Your task to perform on an android device: stop showing notifications on the lock screen Image 0: 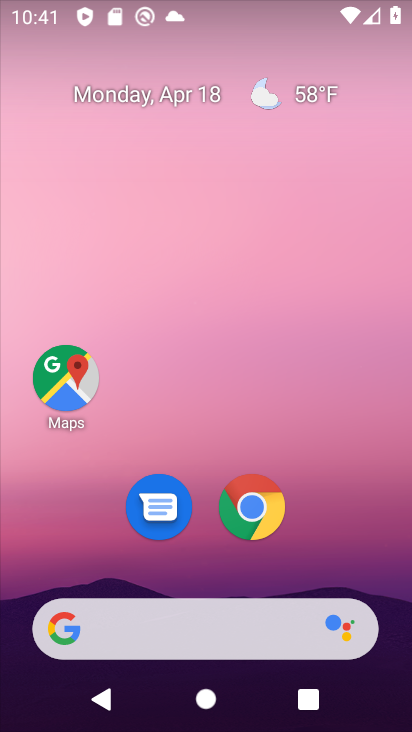
Step 0: drag from (221, 15) to (294, 627)
Your task to perform on an android device: stop showing notifications on the lock screen Image 1: 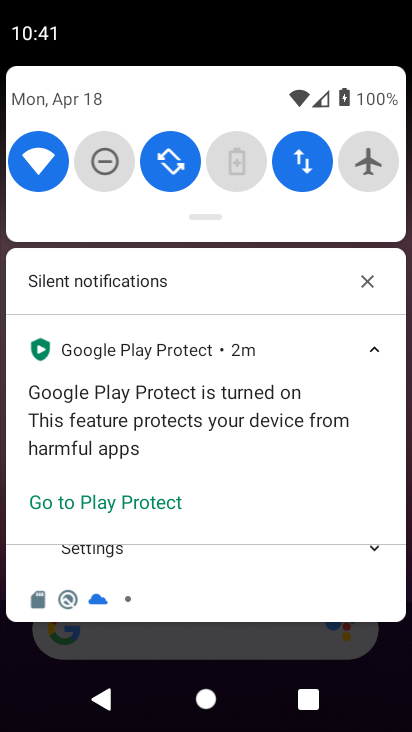
Step 1: drag from (240, 127) to (262, 654)
Your task to perform on an android device: stop showing notifications on the lock screen Image 2: 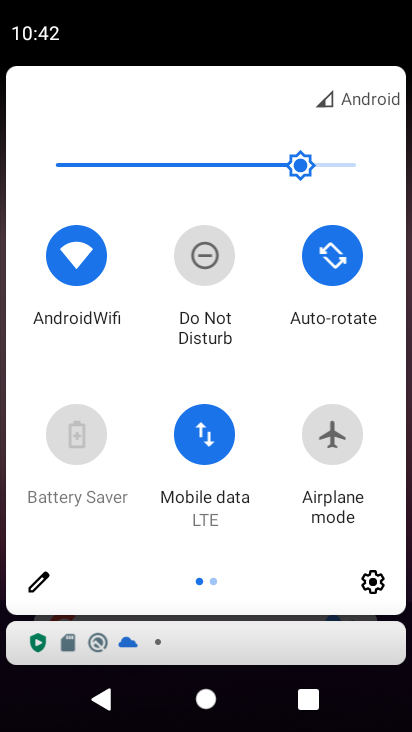
Step 2: click (377, 579)
Your task to perform on an android device: stop showing notifications on the lock screen Image 3: 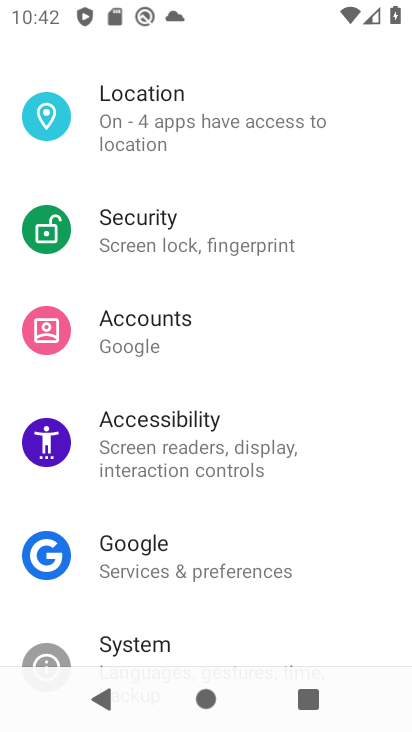
Step 3: click (377, 579)
Your task to perform on an android device: stop showing notifications on the lock screen Image 4: 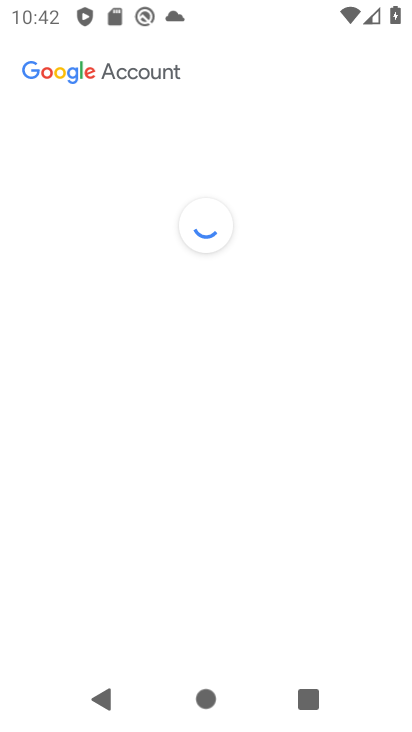
Step 4: drag from (242, 234) to (244, 607)
Your task to perform on an android device: stop showing notifications on the lock screen Image 5: 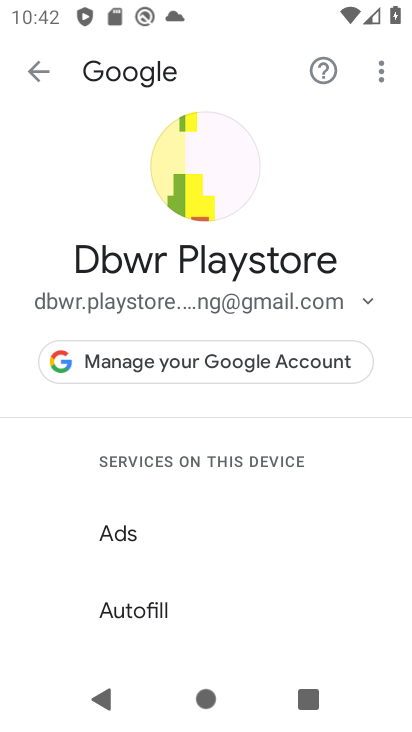
Step 5: click (33, 80)
Your task to perform on an android device: stop showing notifications on the lock screen Image 6: 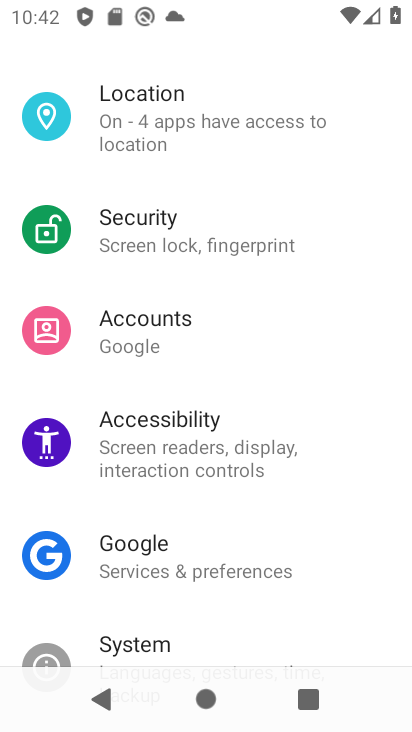
Step 6: drag from (145, 148) to (270, 629)
Your task to perform on an android device: stop showing notifications on the lock screen Image 7: 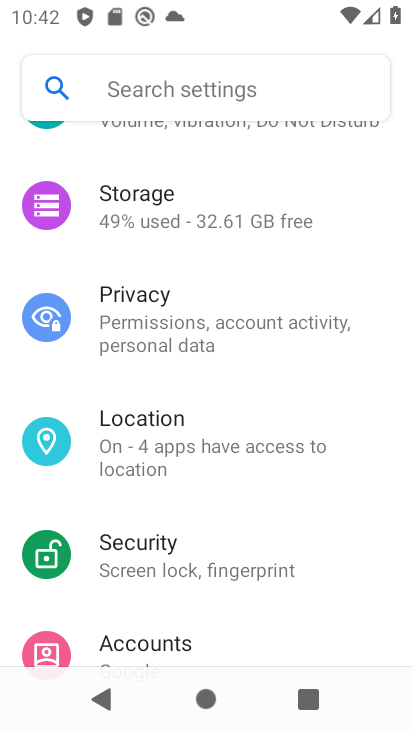
Step 7: drag from (206, 236) to (264, 618)
Your task to perform on an android device: stop showing notifications on the lock screen Image 8: 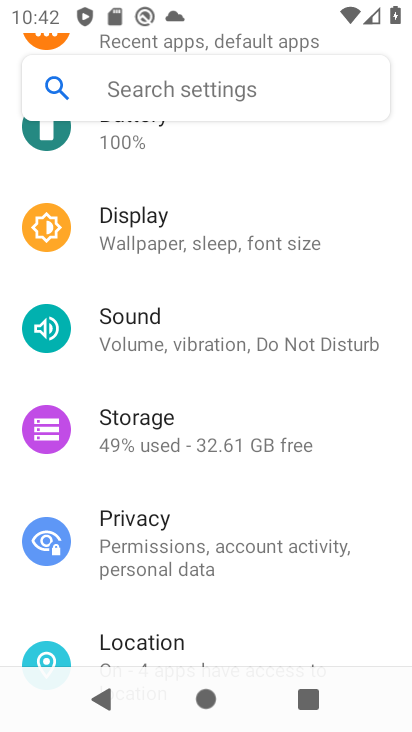
Step 8: drag from (188, 157) to (203, 640)
Your task to perform on an android device: stop showing notifications on the lock screen Image 9: 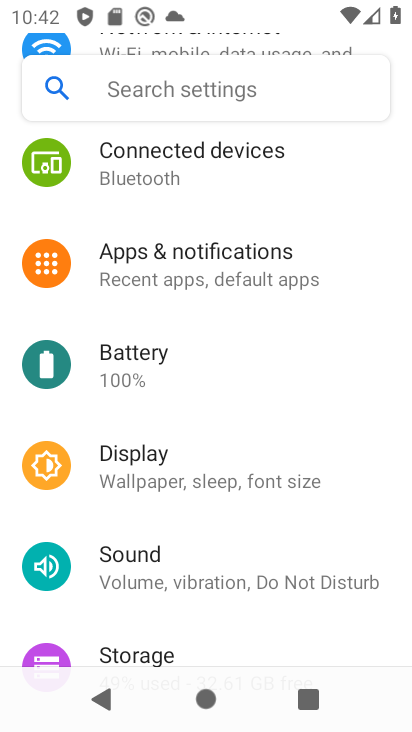
Step 9: click (227, 251)
Your task to perform on an android device: stop showing notifications on the lock screen Image 10: 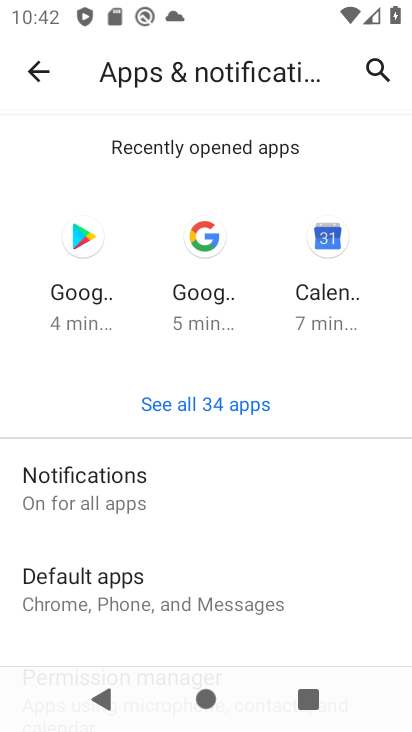
Step 10: click (165, 492)
Your task to perform on an android device: stop showing notifications on the lock screen Image 11: 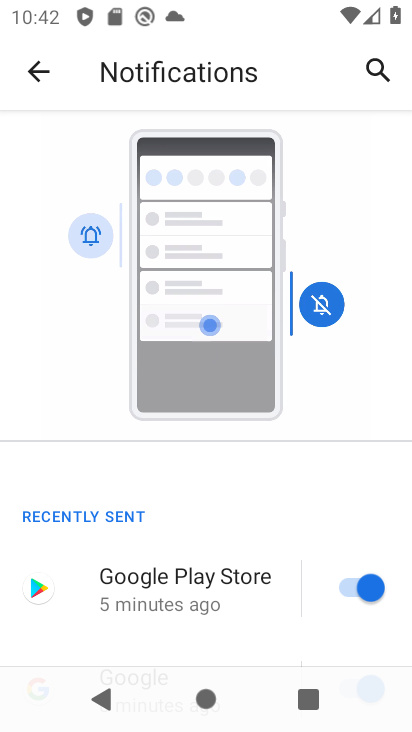
Step 11: drag from (173, 575) to (258, 43)
Your task to perform on an android device: stop showing notifications on the lock screen Image 12: 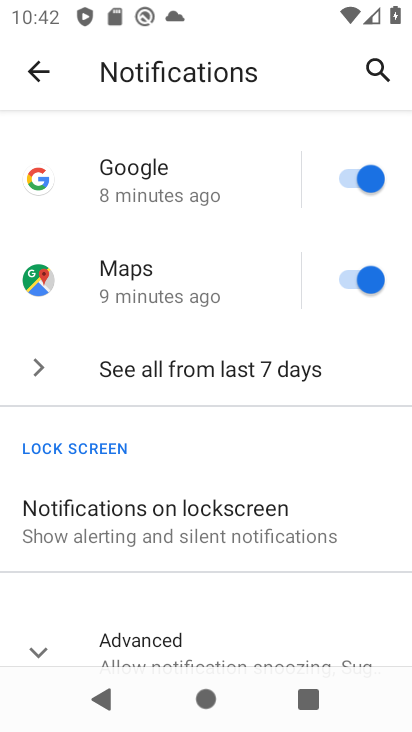
Step 12: click (195, 512)
Your task to perform on an android device: stop showing notifications on the lock screen Image 13: 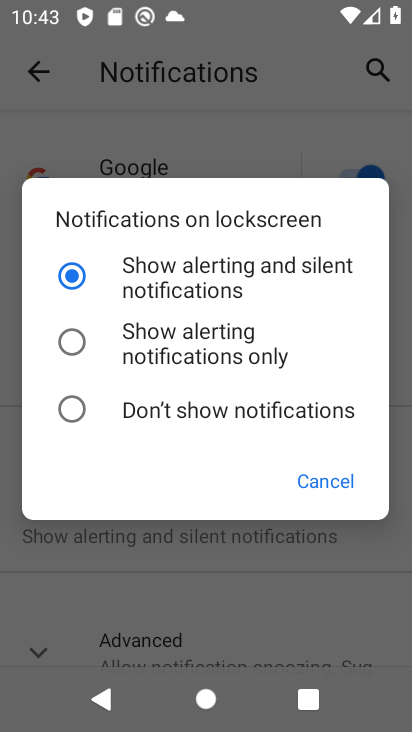
Step 13: click (243, 409)
Your task to perform on an android device: stop showing notifications on the lock screen Image 14: 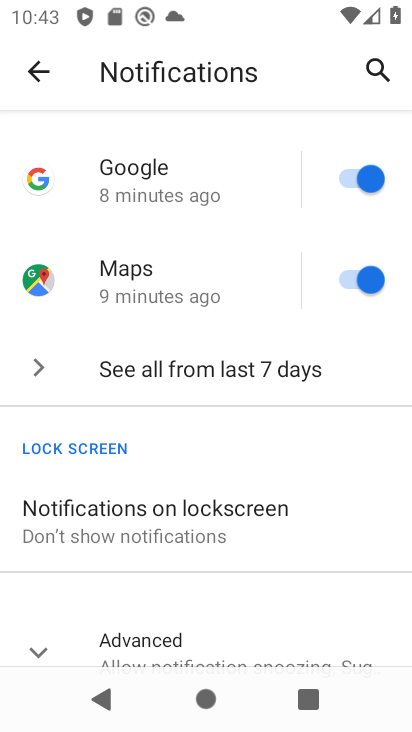
Step 14: task complete